Your task to perform on an android device: empty trash in google photos Image 0: 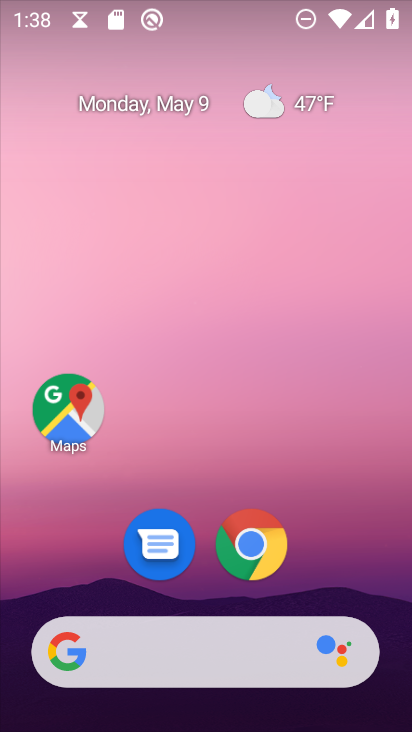
Step 0: drag from (409, 532) to (404, 142)
Your task to perform on an android device: empty trash in google photos Image 1: 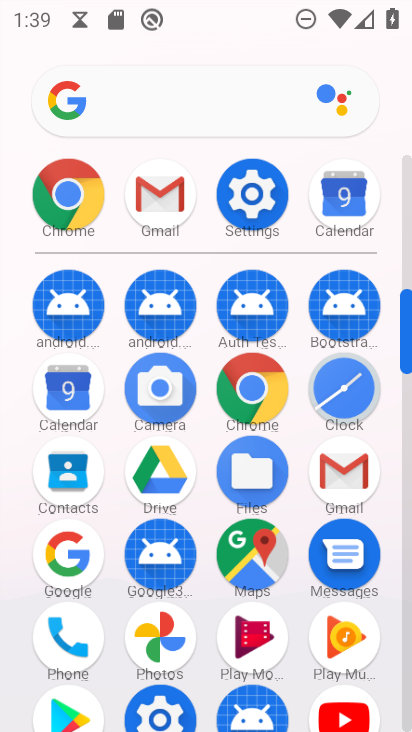
Step 1: click (138, 629)
Your task to perform on an android device: empty trash in google photos Image 2: 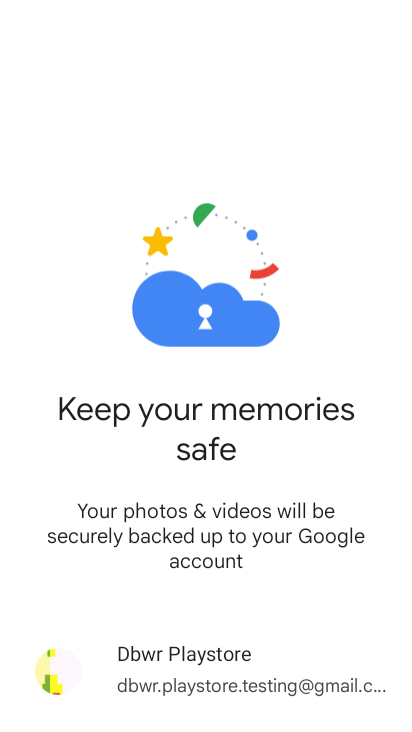
Step 2: drag from (142, 624) to (150, 257)
Your task to perform on an android device: empty trash in google photos Image 3: 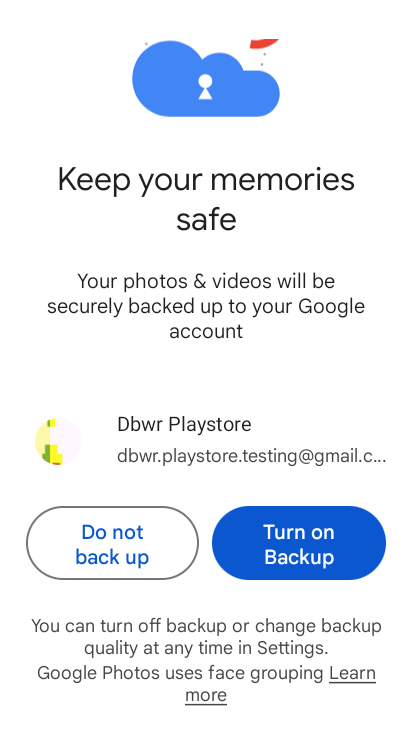
Step 3: drag from (196, 349) to (202, 235)
Your task to perform on an android device: empty trash in google photos Image 4: 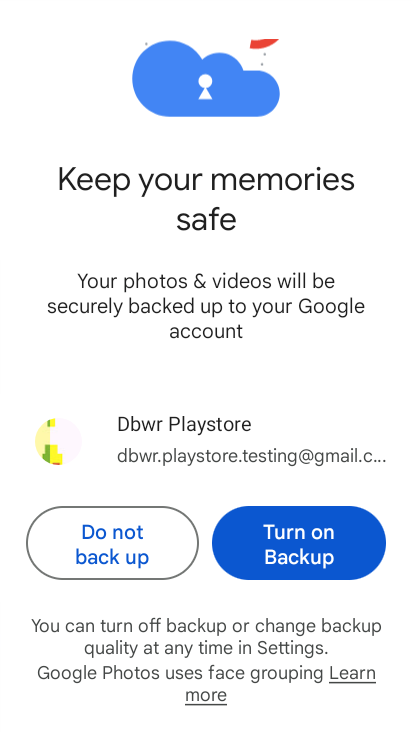
Step 4: drag from (202, 235) to (260, 512)
Your task to perform on an android device: empty trash in google photos Image 5: 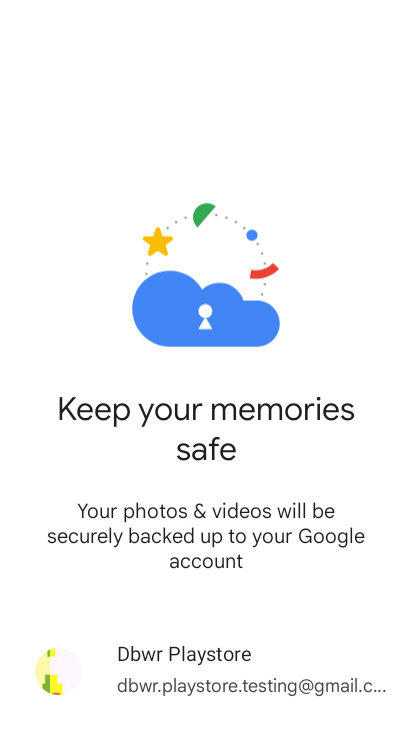
Step 5: click (190, 683)
Your task to perform on an android device: empty trash in google photos Image 6: 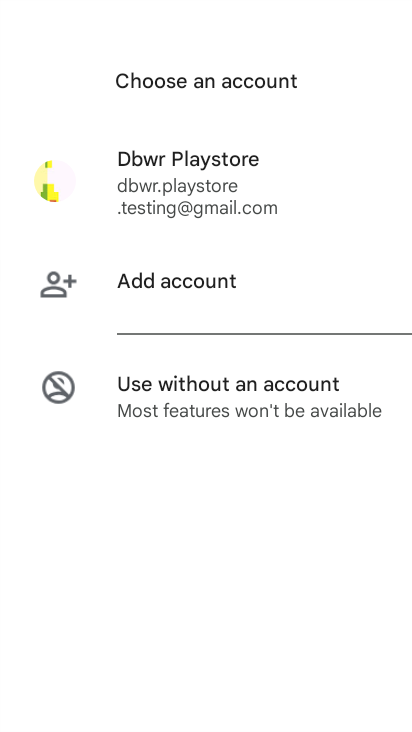
Step 6: task complete